Your task to perform on an android device: change the upload size in google photos Image 0: 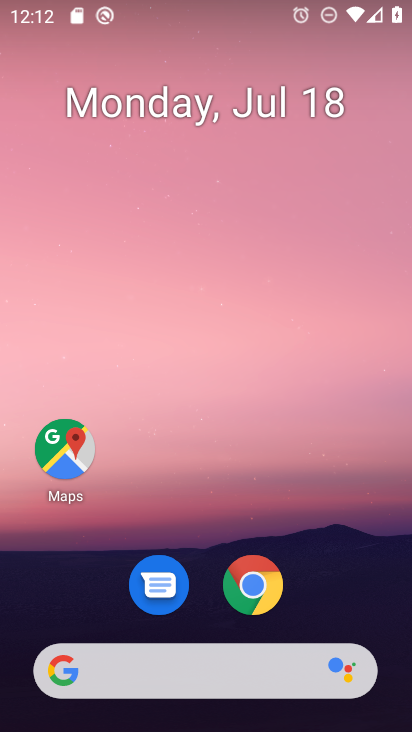
Step 0: drag from (309, 512) to (323, 33)
Your task to perform on an android device: change the upload size in google photos Image 1: 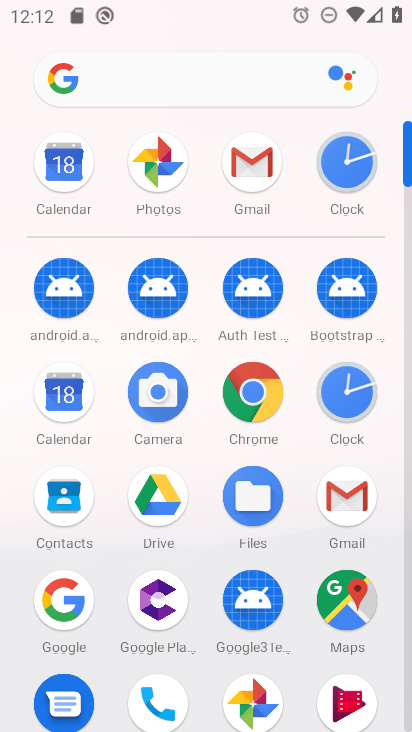
Step 1: click (163, 163)
Your task to perform on an android device: change the upload size in google photos Image 2: 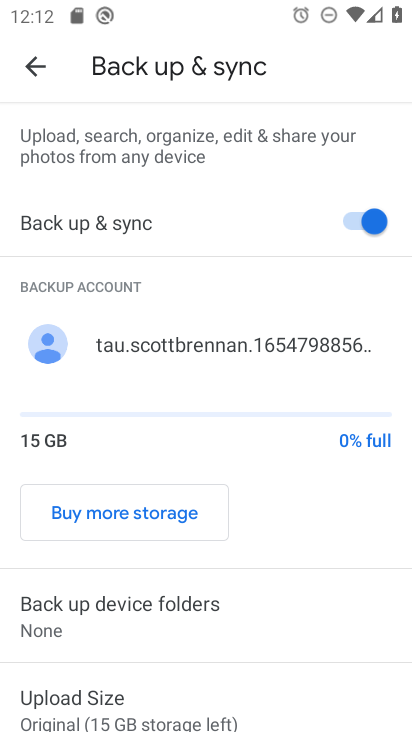
Step 2: drag from (222, 614) to (201, 330)
Your task to perform on an android device: change the upload size in google photos Image 3: 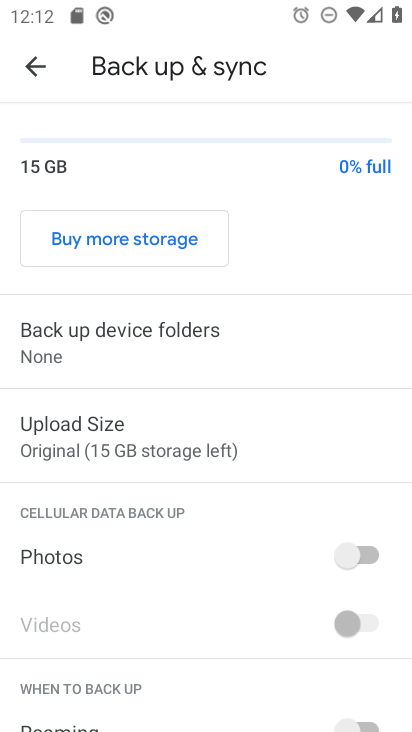
Step 3: click (220, 428)
Your task to perform on an android device: change the upload size in google photos Image 4: 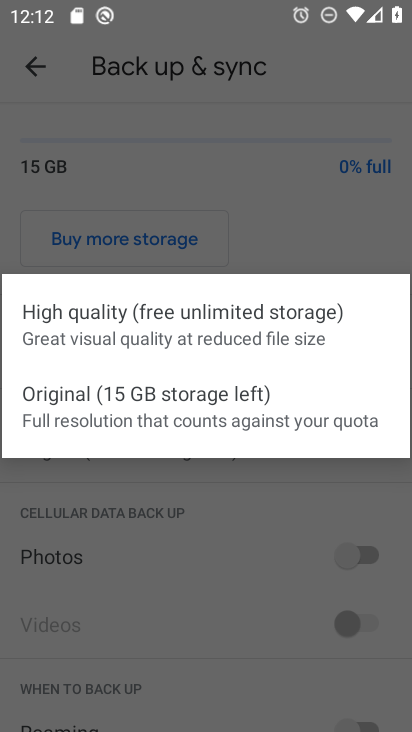
Step 4: click (254, 309)
Your task to perform on an android device: change the upload size in google photos Image 5: 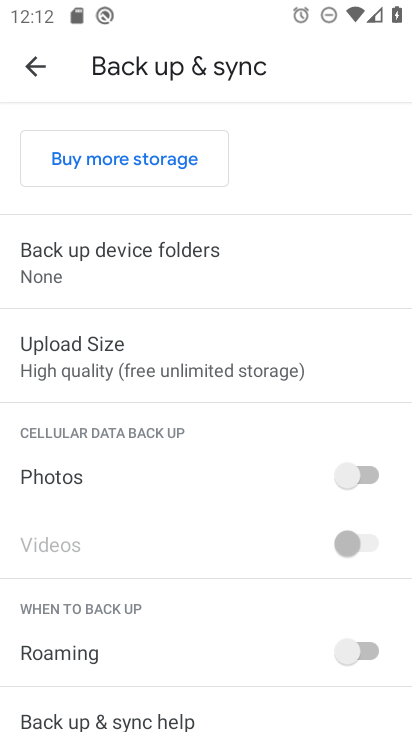
Step 5: task complete